Your task to perform on an android device: create a new album in the google photos Image 0: 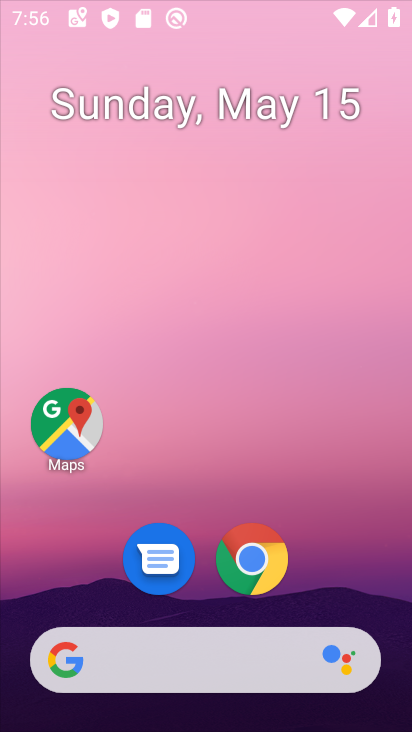
Step 0: drag from (323, 566) to (334, 232)
Your task to perform on an android device: create a new album in the google photos Image 1: 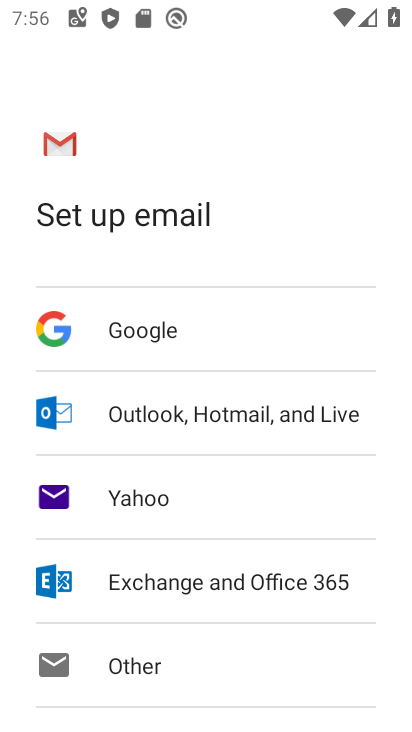
Step 1: press home button
Your task to perform on an android device: create a new album in the google photos Image 2: 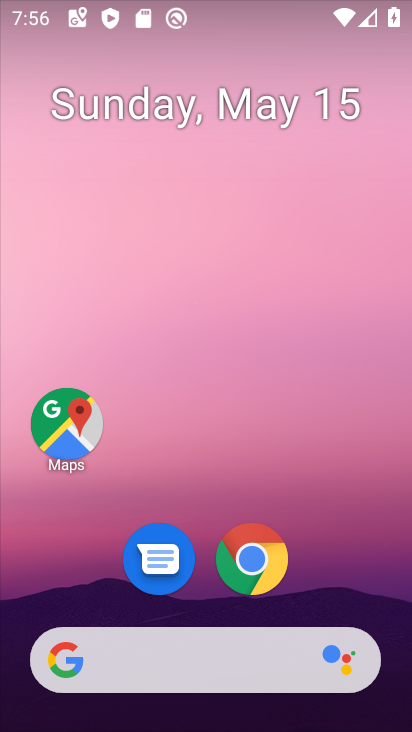
Step 2: drag from (297, 565) to (298, 177)
Your task to perform on an android device: create a new album in the google photos Image 3: 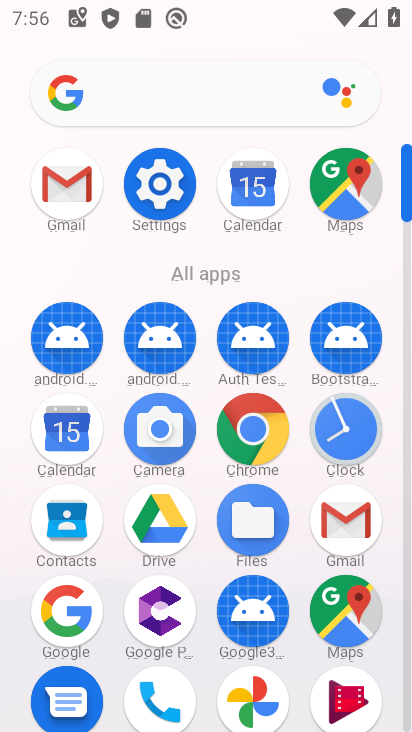
Step 3: click (264, 715)
Your task to perform on an android device: create a new album in the google photos Image 4: 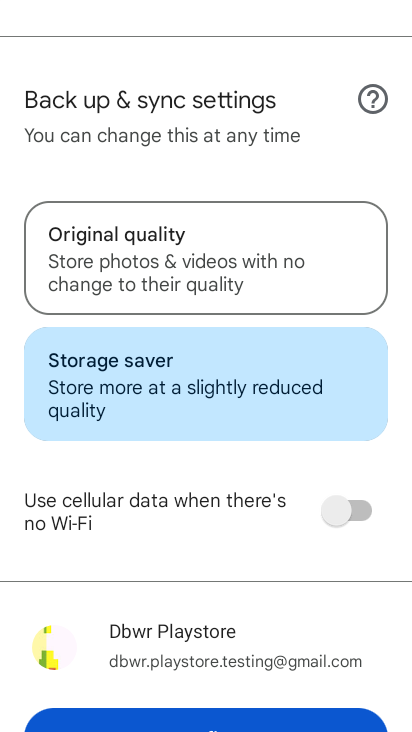
Step 4: press back button
Your task to perform on an android device: create a new album in the google photos Image 5: 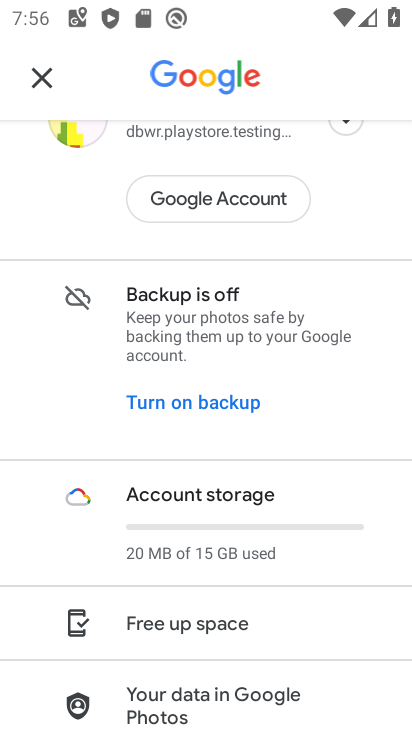
Step 5: click (50, 81)
Your task to perform on an android device: create a new album in the google photos Image 6: 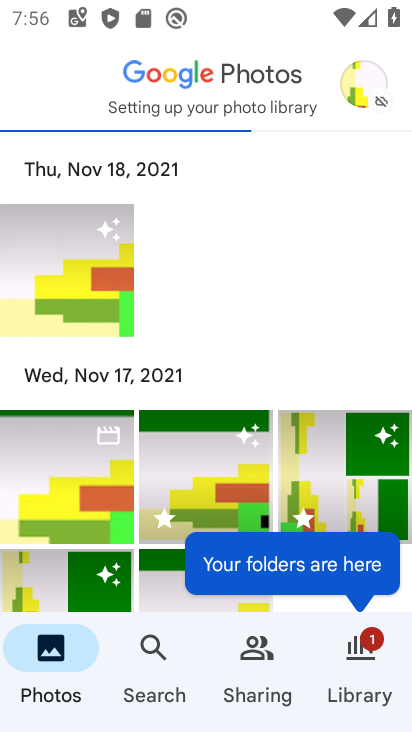
Step 6: click (380, 667)
Your task to perform on an android device: create a new album in the google photos Image 7: 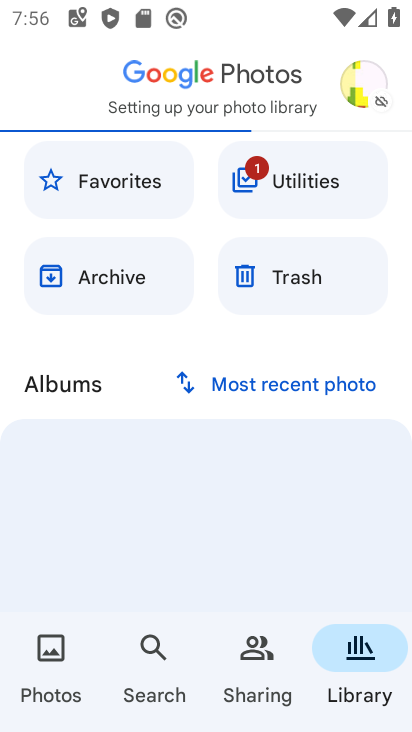
Step 7: click (164, 503)
Your task to perform on an android device: create a new album in the google photos Image 8: 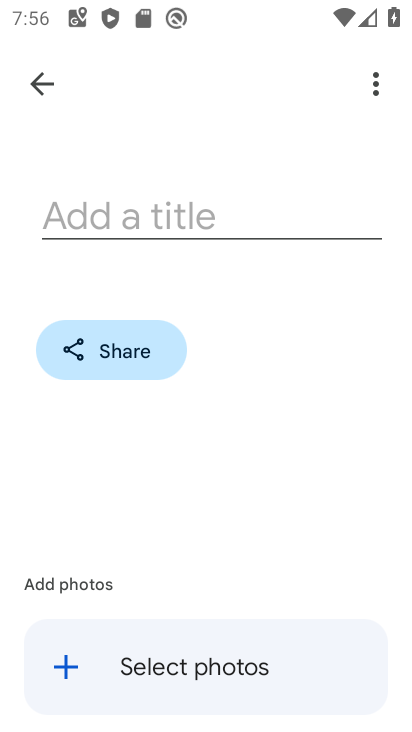
Step 8: click (189, 229)
Your task to perform on an android device: create a new album in the google photos Image 9: 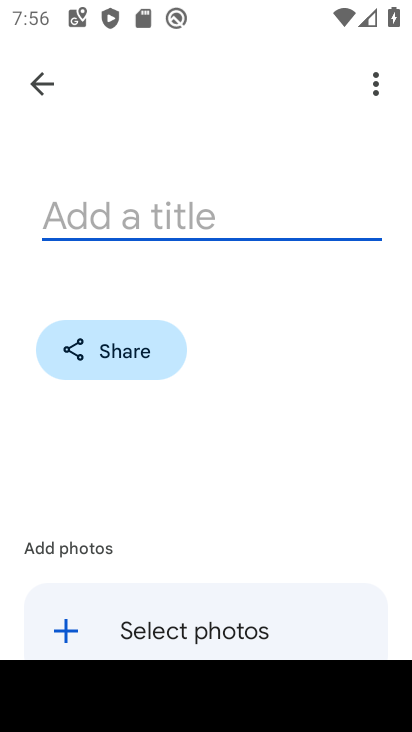
Step 9: type "sa"
Your task to perform on an android device: create a new album in the google photos Image 10: 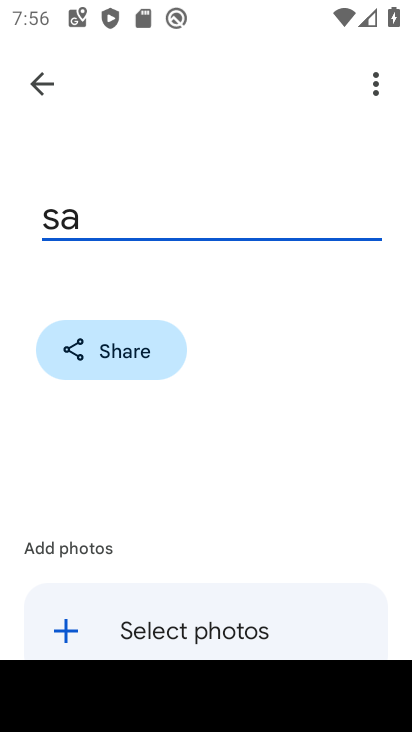
Step 10: click (165, 611)
Your task to perform on an android device: create a new album in the google photos Image 11: 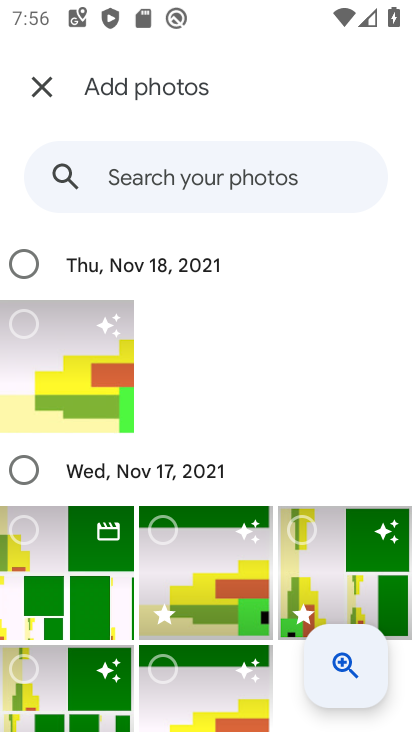
Step 11: click (34, 466)
Your task to perform on an android device: create a new album in the google photos Image 12: 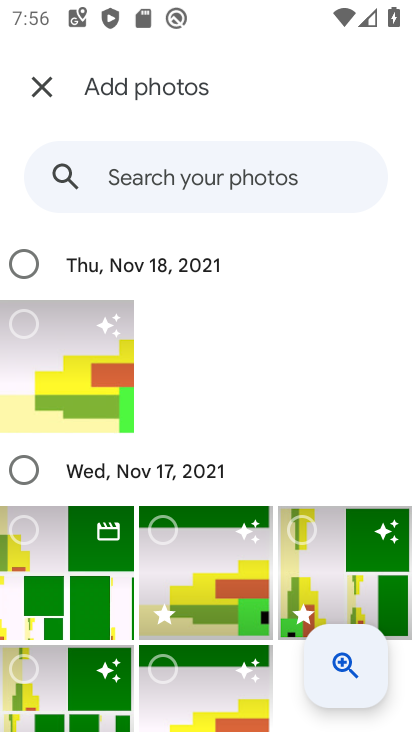
Step 12: click (24, 248)
Your task to perform on an android device: create a new album in the google photos Image 13: 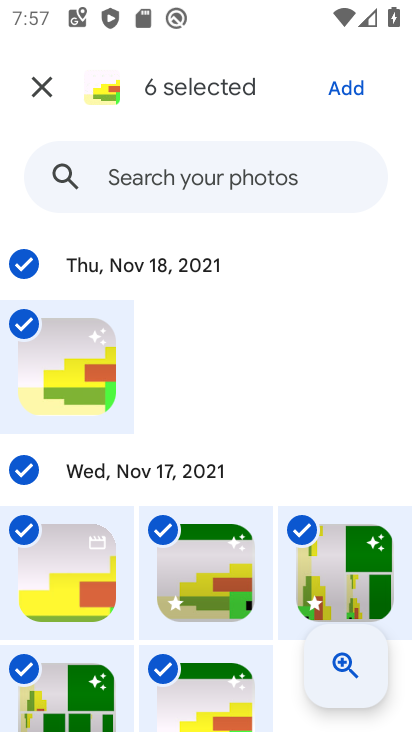
Step 13: click (331, 108)
Your task to perform on an android device: create a new album in the google photos Image 14: 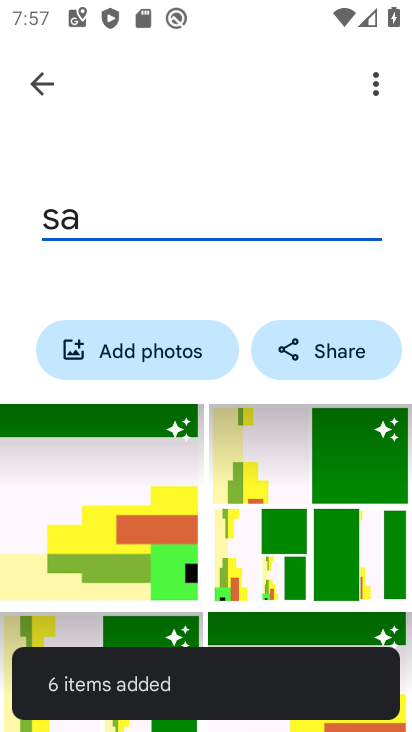
Step 14: task complete